Your task to perform on an android device: Go to accessibility settings Image 0: 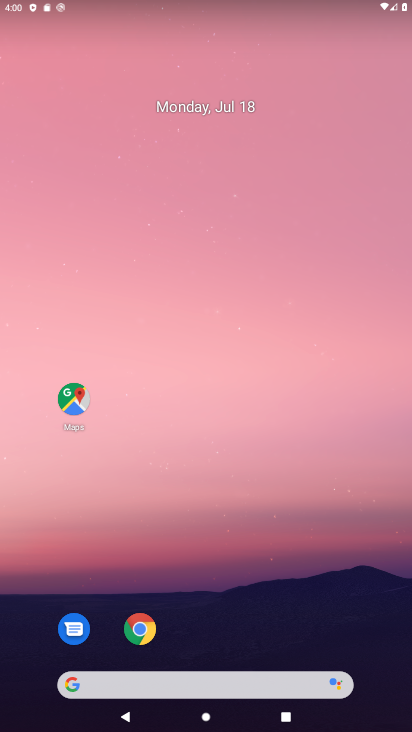
Step 0: drag from (234, 607) to (353, 132)
Your task to perform on an android device: Go to accessibility settings Image 1: 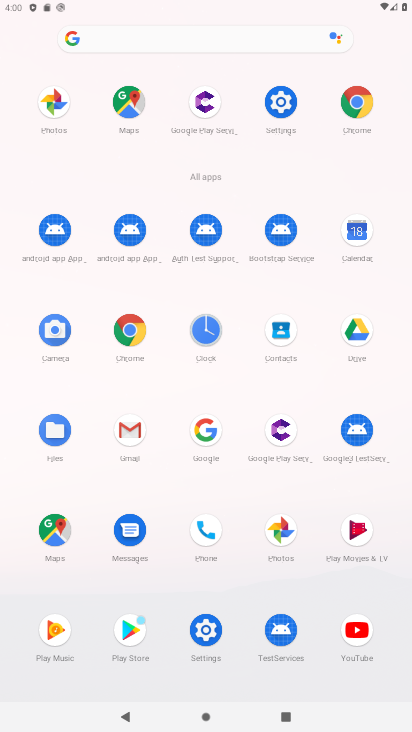
Step 1: drag from (208, 620) to (258, 483)
Your task to perform on an android device: Go to accessibility settings Image 2: 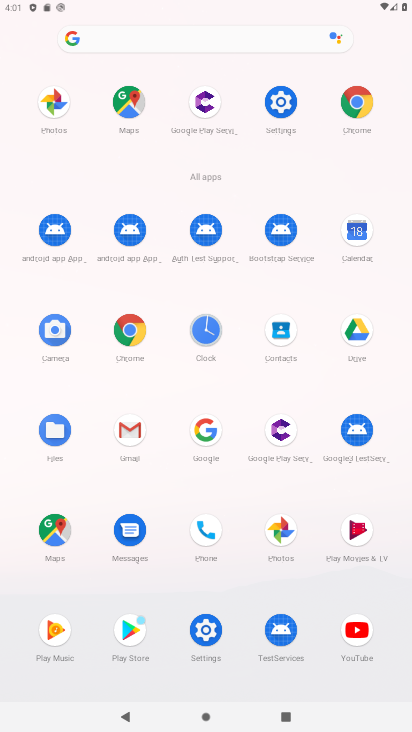
Step 2: click (211, 619)
Your task to perform on an android device: Go to accessibility settings Image 3: 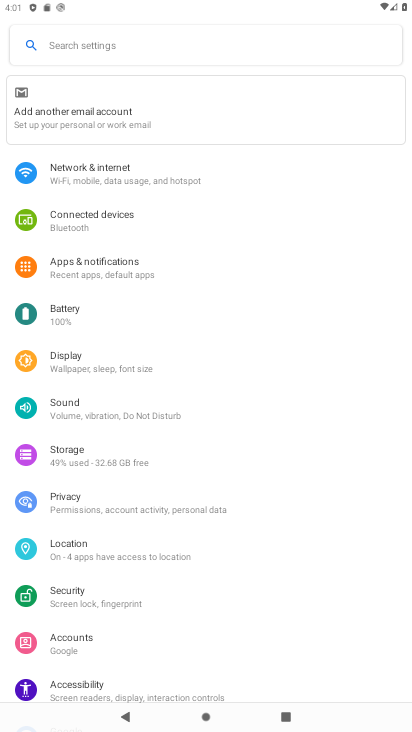
Step 3: drag from (204, 668) to (268, 457)
Your task to perform on an android device: Go to accessibility settings Image 4: 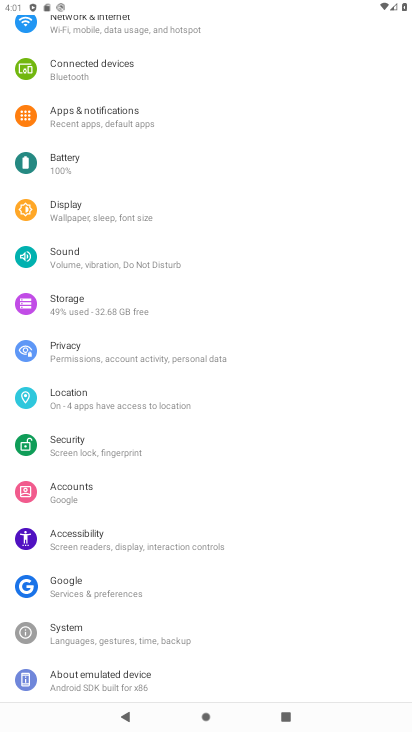
Step 4: click (133, 540)
Your task to perform on an android device: Go to accessibility settings Image 5: 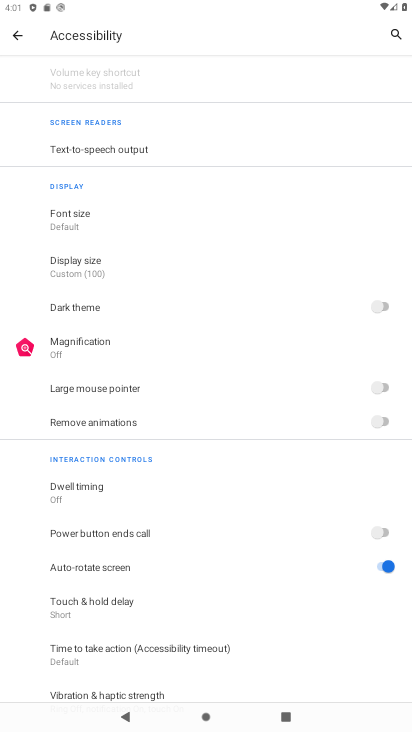
Step 5: task complete